Your task to perform on an android device: allow cookies in the chrome app Image 0: 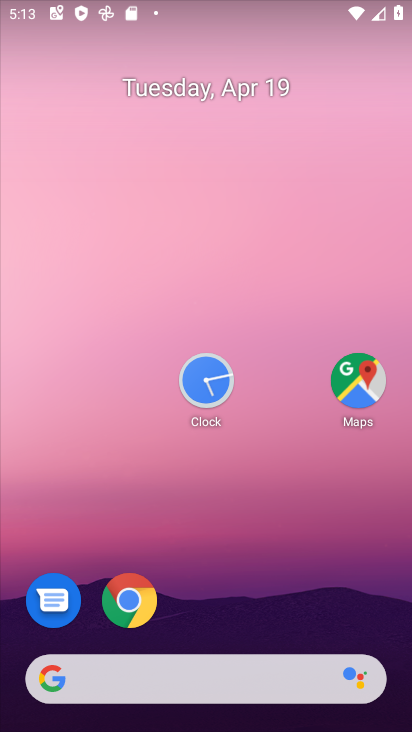
Step 0: drag from (115, 165) to (94, 78)
Your task to perform on an android device: allow cookies in the chrome app Image 1: 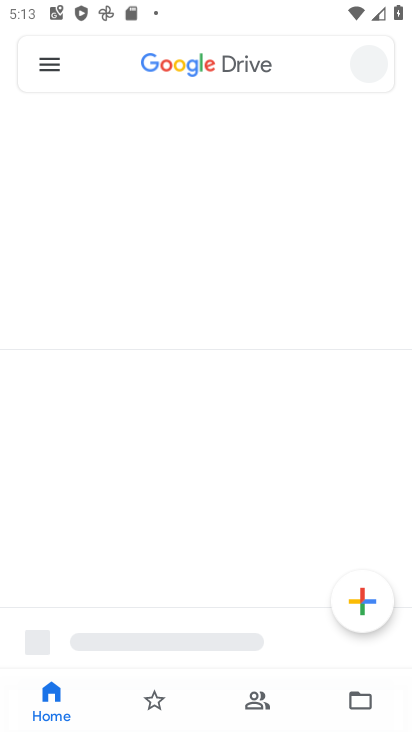
Step 1: drag from (280, 478) to (142, 70)
Your task to perform on an android device: allow cookies in the chrome app Image 2: 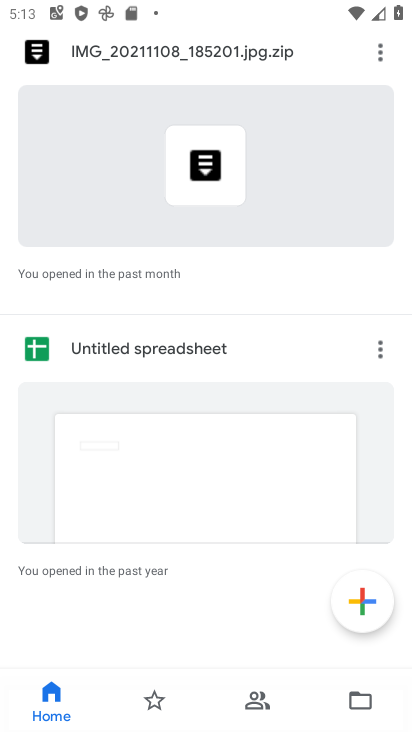
Step 2: press home button
Your task to perform on an android device: allow cookies in the chrome app Image 3: 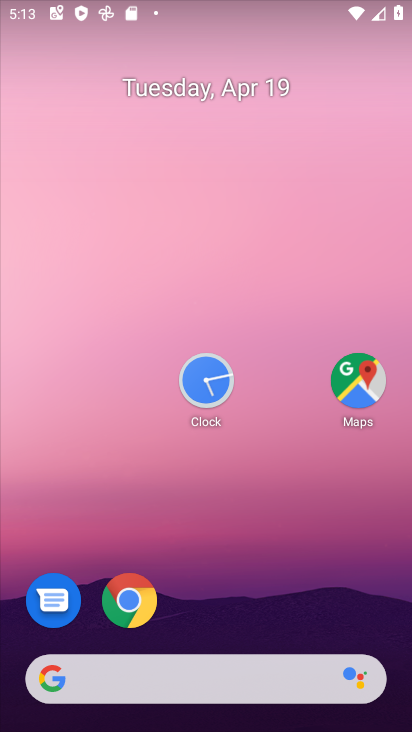
Step 3: drag from (267, 599) to (114, 101)
Your task to perform on an android device: allow cookies in the chrome app Image 4: 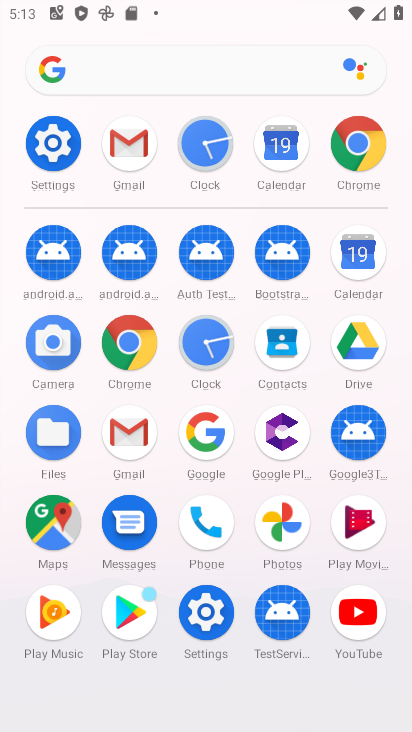
Step 4: click (351, 147)
Your task to perform on an android device: allow cookies in the chrome app Image 5: 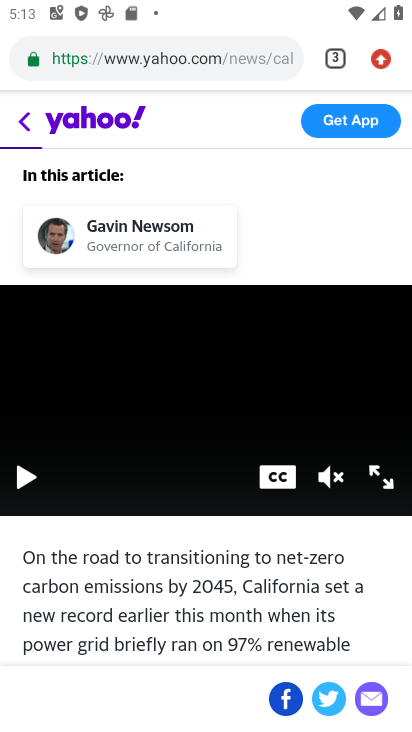
Step 5: click (381, 62)
Your task to perform on an android device: allow cookies in the chrome app Image 6: 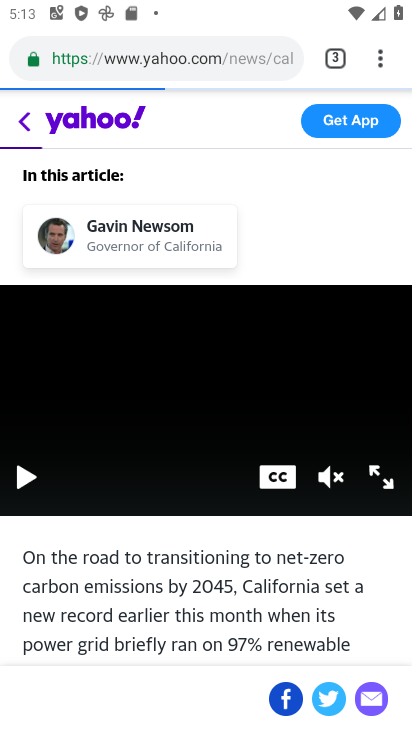
Step 6: click (386, 59)
Your task to perform on an android device: allow cookies in the chrome app Image 7: 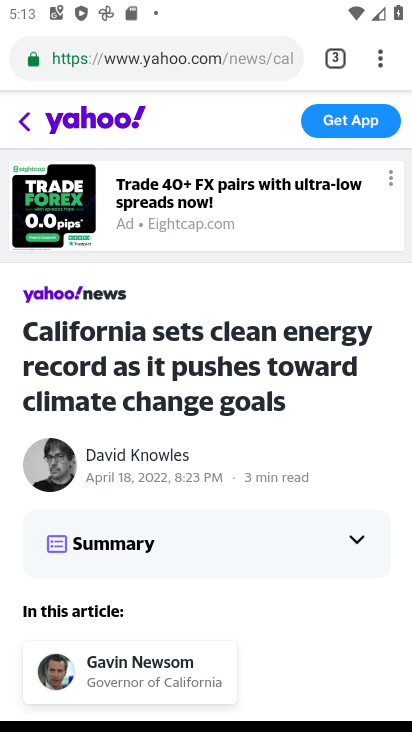
Step 7: click (374, 61)
Your task to perform on an android device: allow cookies in the chrome app Image 8: 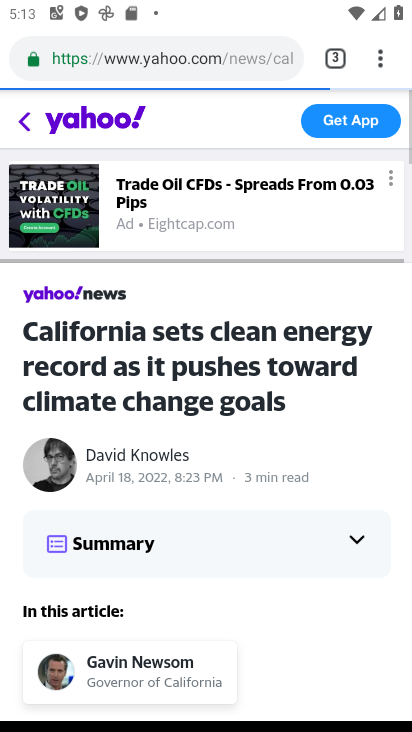
Step 8: click (374, 61)
Your task to perform on an android device: allow cookies in the chrome app Image 9: 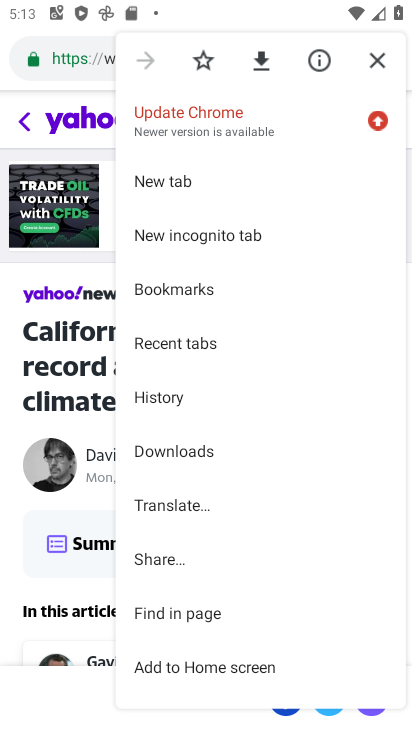
Step 9: drag from (231, 574) to (159, 39)
Your task to perform on an android device: allow cookies in the chrome app Image 10: 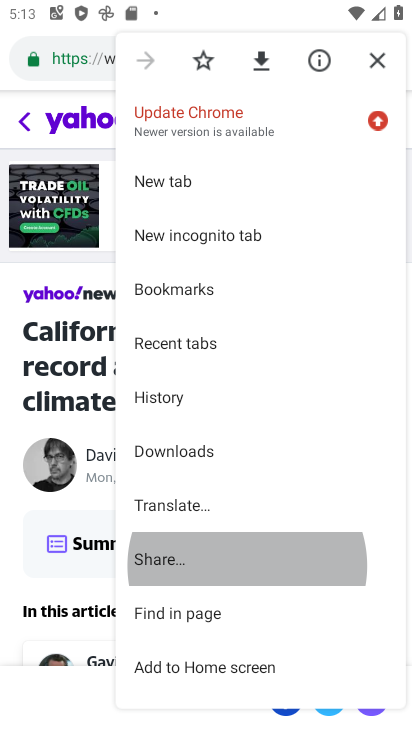
Step 10: drag from (268, 534) to (218, 157)
Your task to perform on an android device: allow cookies in the chrome app Image 11: 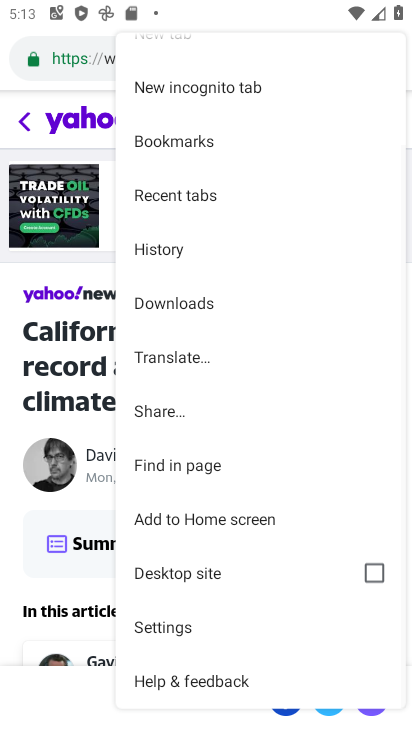
Step 11: click (161, 628)
Your task to perform on an android device: allow cookies in the chrome app Image 12: 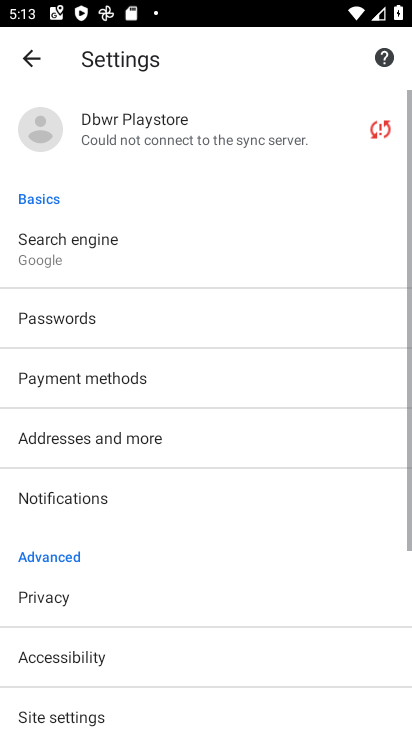
Step 12: drag from (169, 491) to (149, 74)
Your task to perform on an android device: allow cookies in the chrome app Image 13: 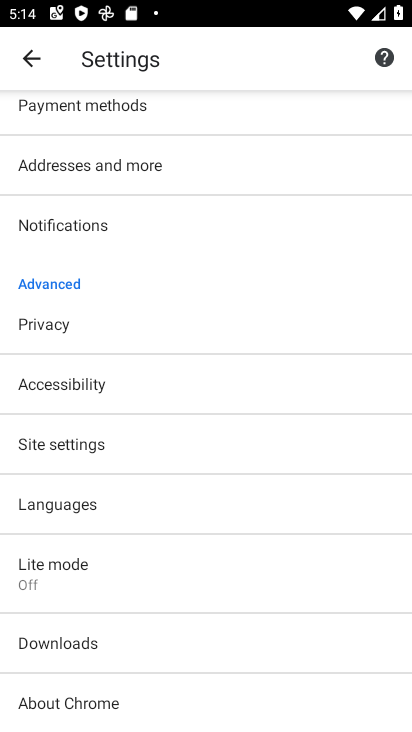
Step 13: click (55, 446)
Your task to perform on an android device: allow cookies in the chrome app Image 14: 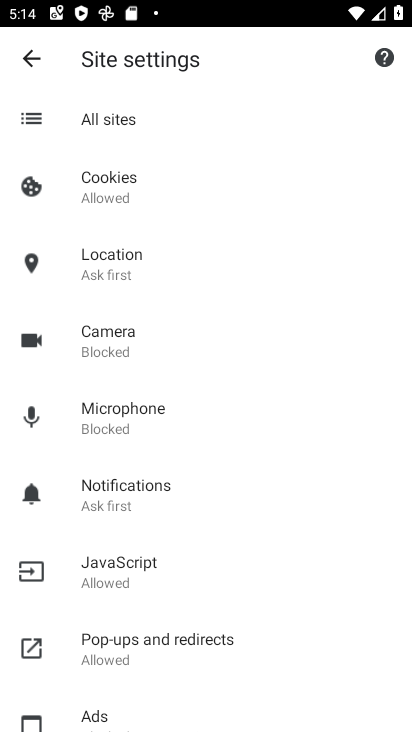
Step 14: click (102, 192)
Your task to perform on an android device: allow cookies in the chrome app Image 15: 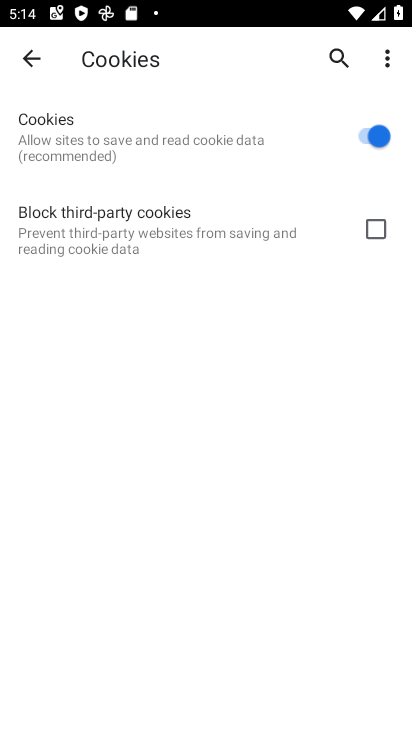
Step 15: task complete